Your task to perform on an android device: turn off javascript in the chrome app Image 0: 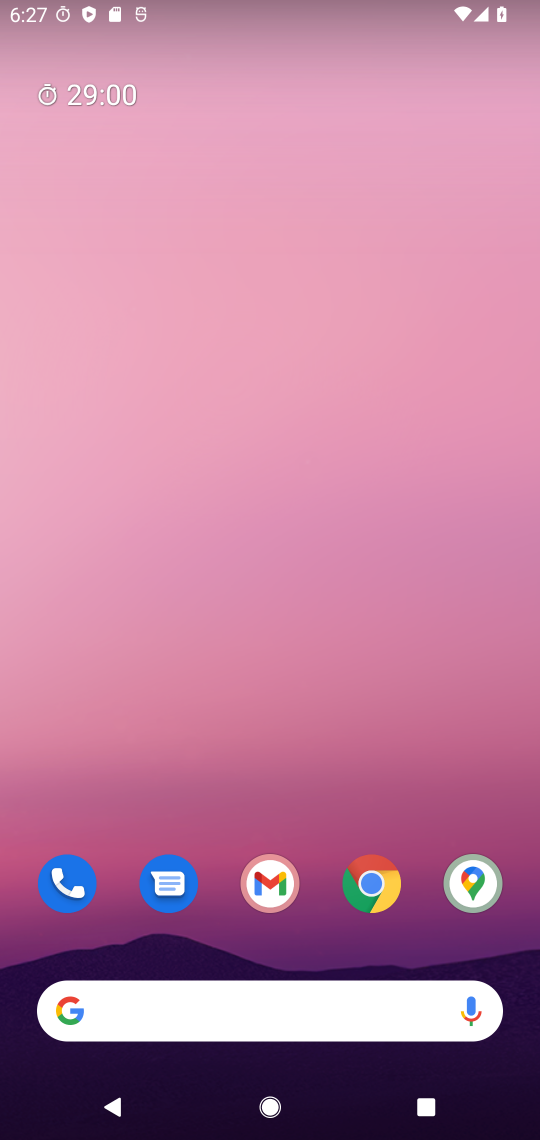
Step 0: click (386, 896)
Your task to perform on an android device: turn off javascript in the chrome app Image 1: 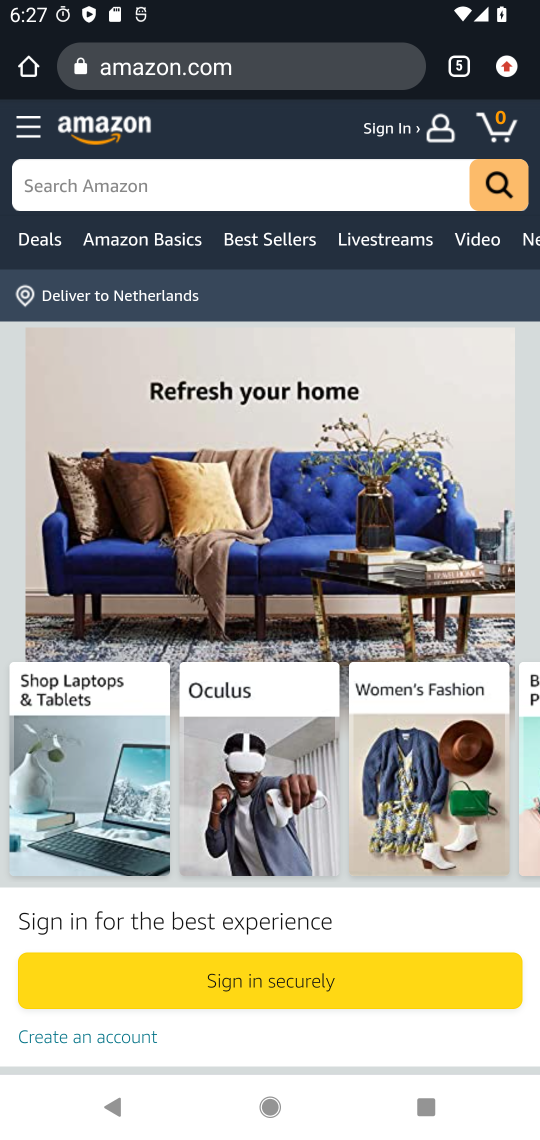
Step 1: click (511, 58)
Your task to perform on an android device: turn off javascript in the chrome app Image 2: 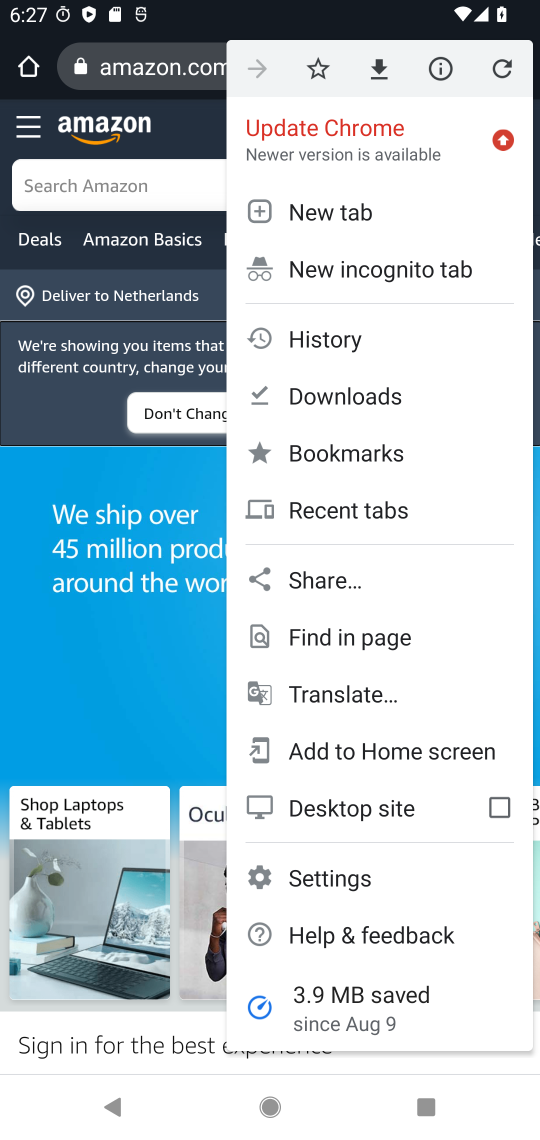
Step 2: click (342, 887)
Your task to perform on an android device: turn off javascript in the chrome app Image 3: 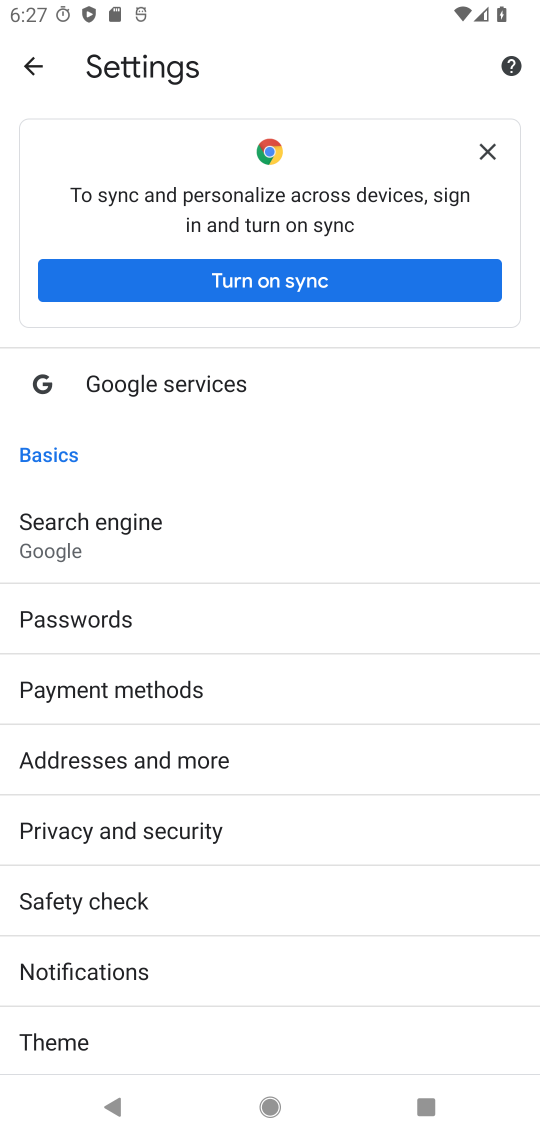
Step 3: drag from (220, 935) to (230, 528)
Your task to perform on an android device: turn off javascript in the chrome app Image 4: 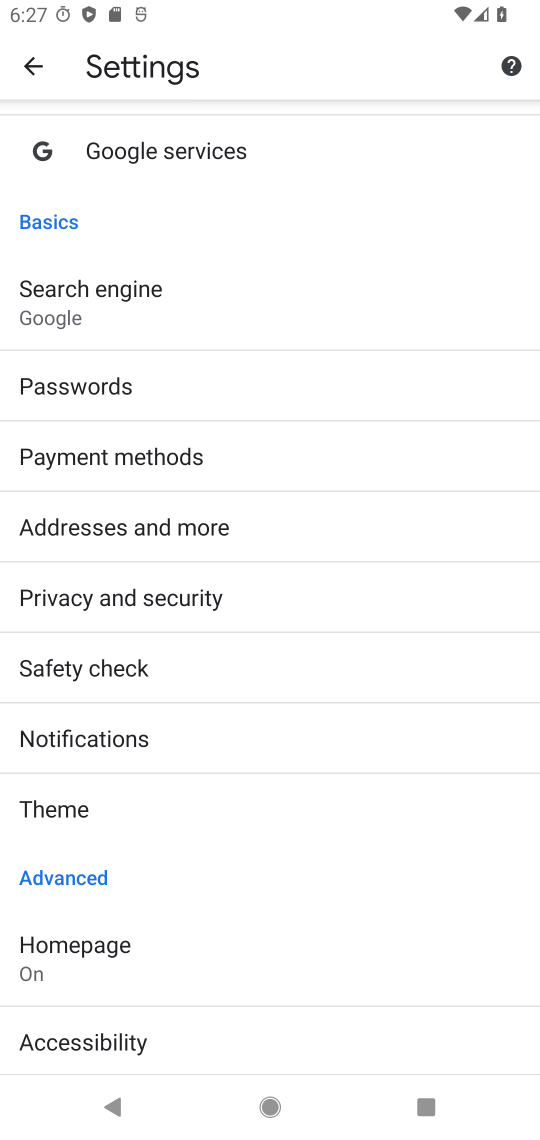
Step 4: drag from (207, 875) to (222, 475)
Your task to perform on an android device: turn off javascript in the chrome app Image 5: 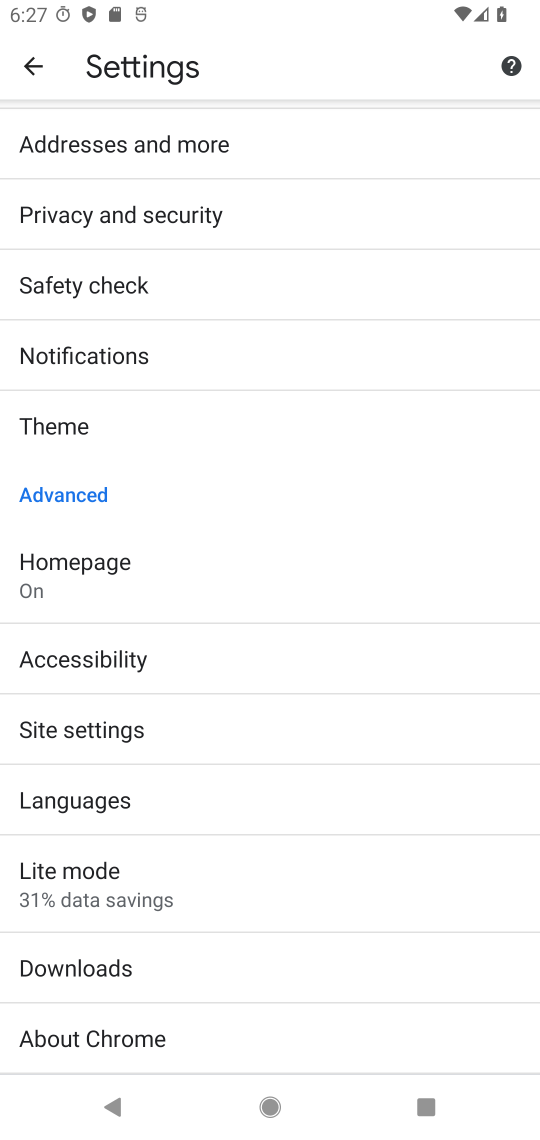
Step 5: click (126, 738)
Your task to perform on an android device: turn off javascript in the chrome app Image 6: 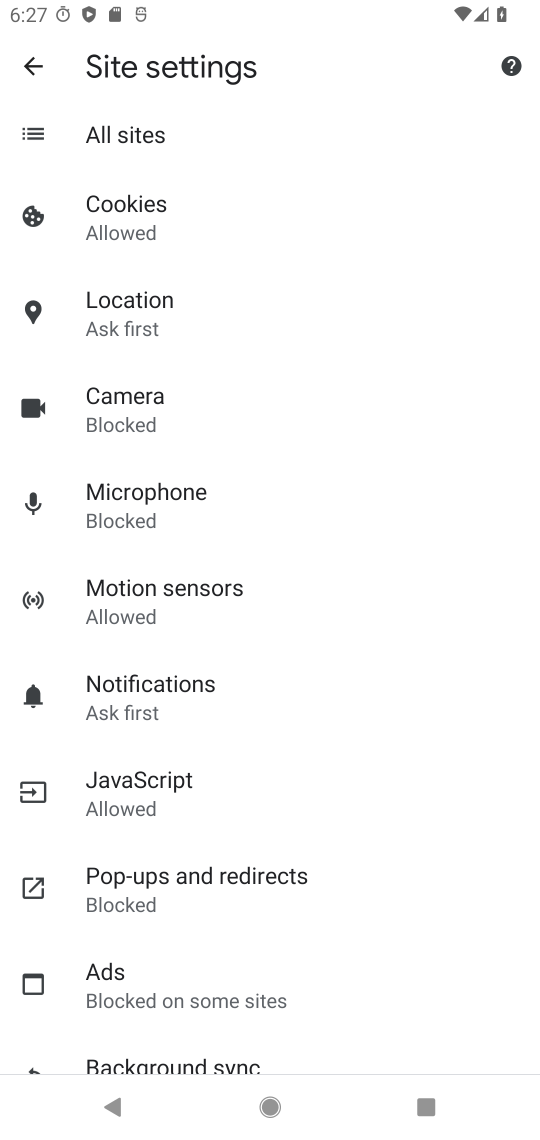
Step 6: click (183, 806)
Your task to perform on an android device: turn off javascript in the chrome app Image 7: 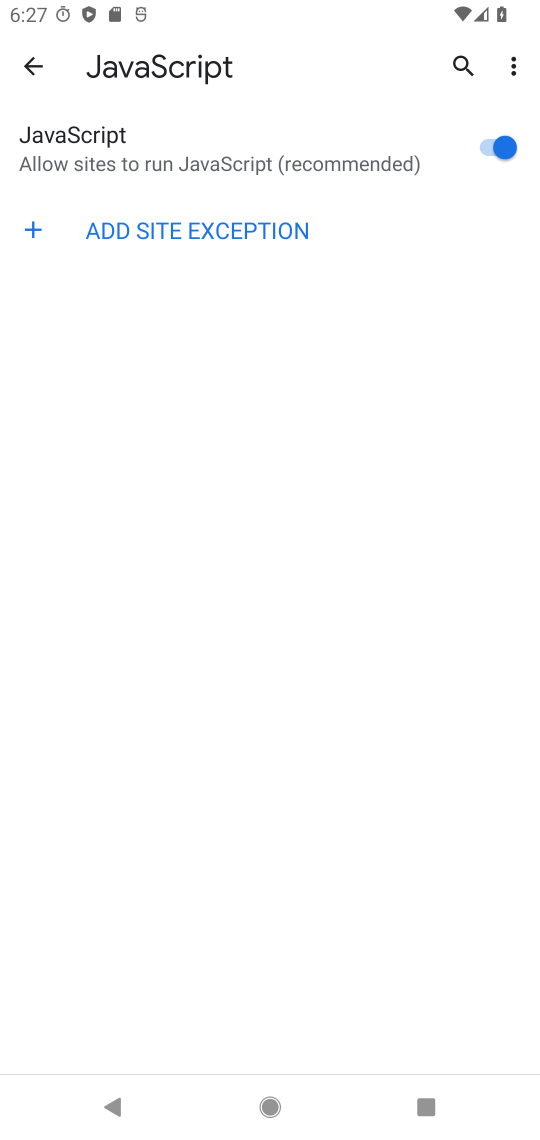
Step 7: click (505, 136)
Your task to perform on an android device: turn off javascript in the chrome app Image 8: 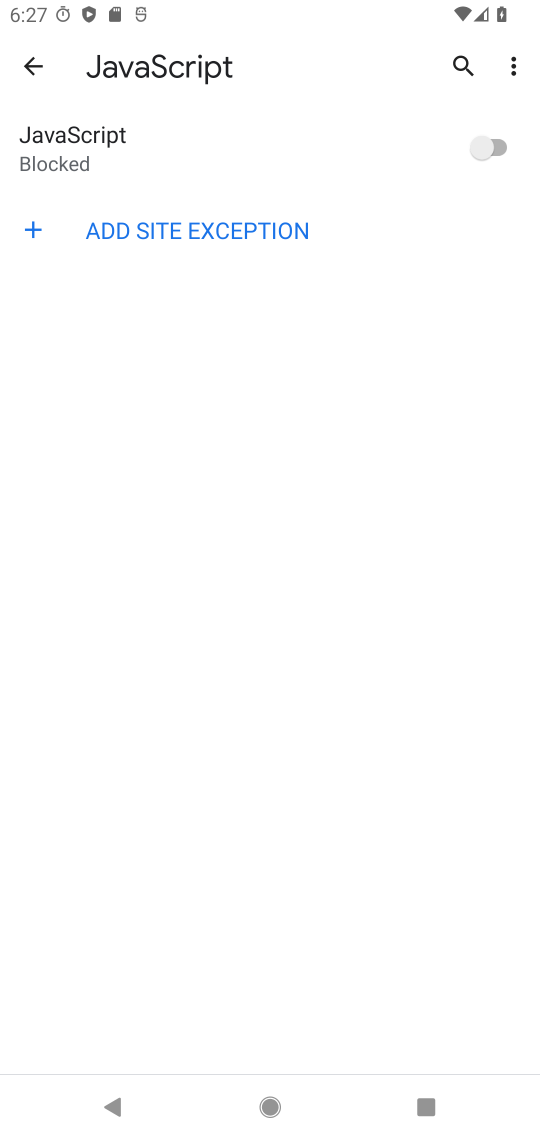
Step 8: task complete